Your task to perform on an android device: delete a single message in the gmail app Image 0: 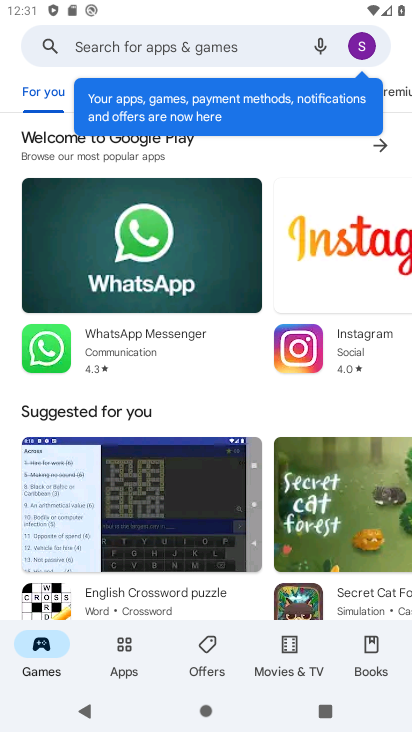
Step 0: press home button
Your task to perform on an android device: delete a single message in the gmail app Image 1: 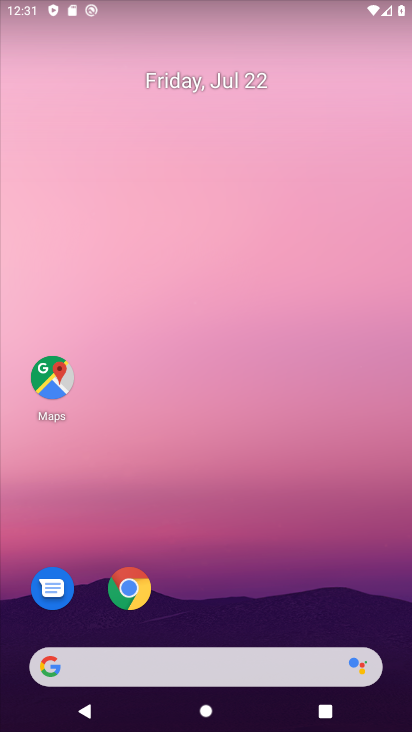
Step 1: drag from (222, 619) to (167, 162)
Your task to perform on an android device: delete a single message in the gmail app Image 2: 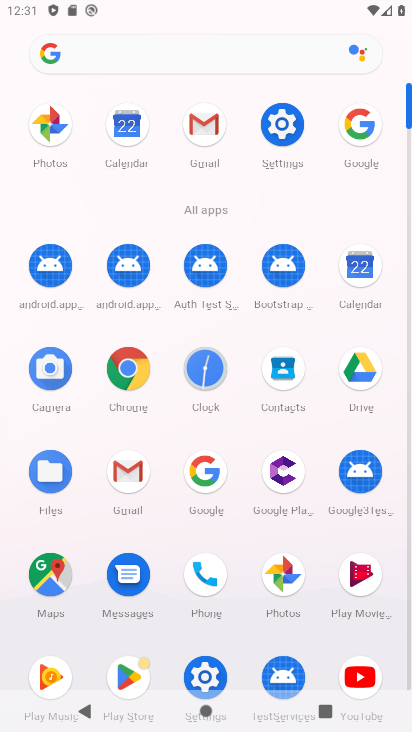
Step 2: click (128, 478)
Your task to perform on an android device: delete a single message in the gmail app Image 3: 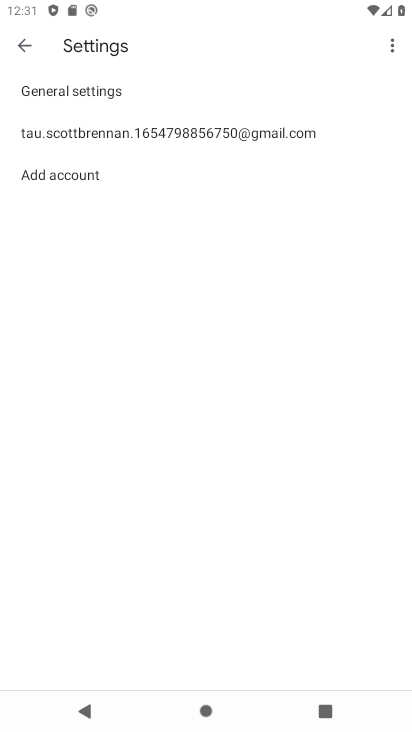
Step 3: click (28, 43)
Your task to perform on an android device: delete a single message in the gmail app Image 4: 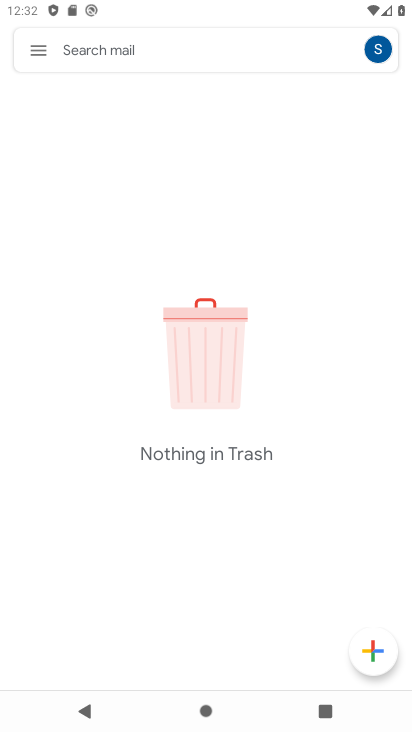
Step 4: task complete